Your task to perform on an android device: Go to sound settings Image 0: 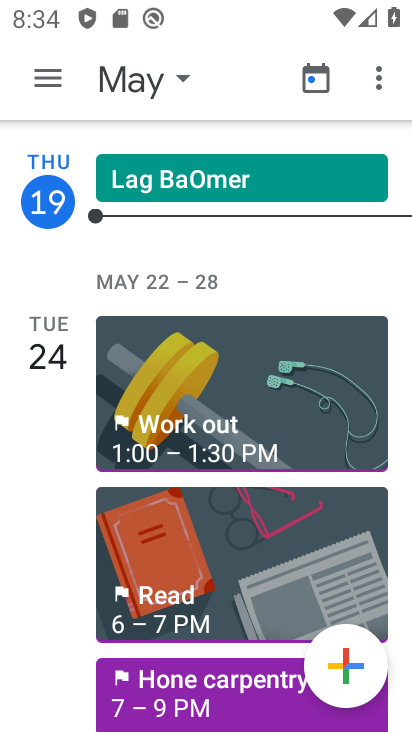
Step 0: press home button
Your task to perform on an android device: Go to sound settings Image 1: 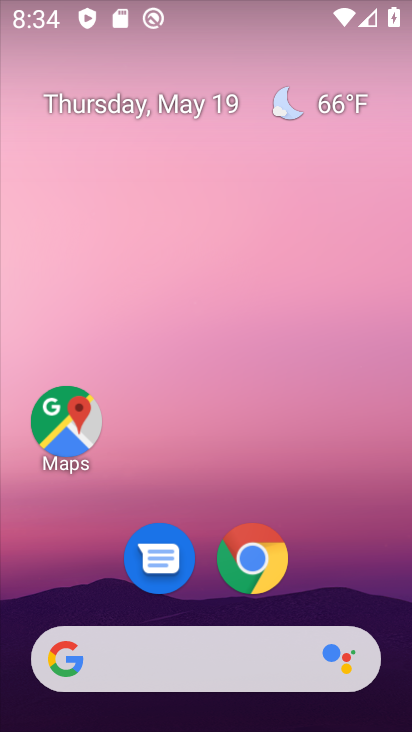
Step 1: drag from (174, 608) to (193, 264)
Your task to perform on an android device: Go to sound settings Image 2: 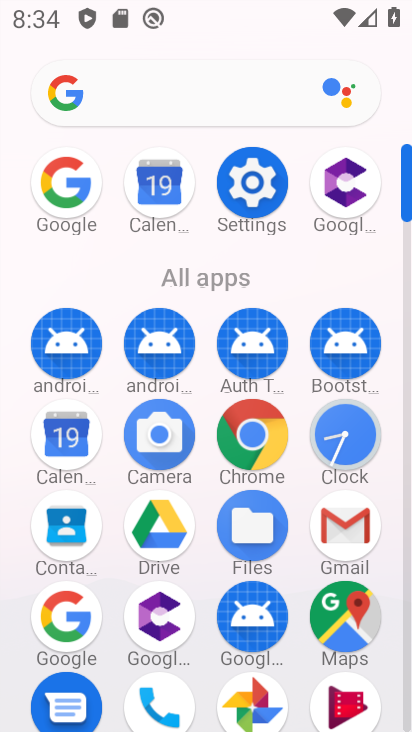
Step 2: click (249, 190)
Your task to perform on an android device: Go to sound settings Image 3: 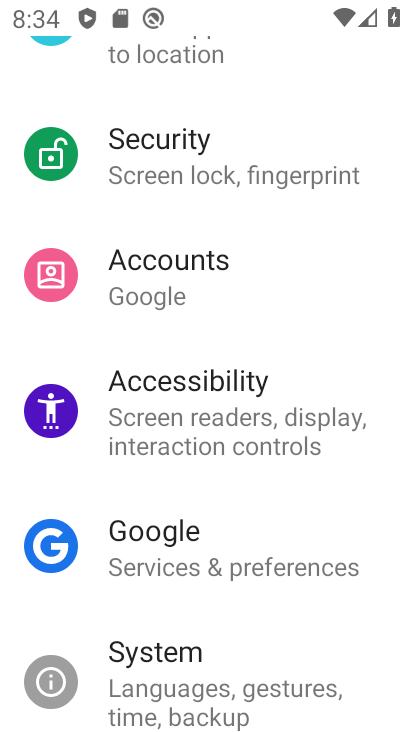
Step 3: drag from (189, 181) to (189, 498)
Your task to perform on an android device: Go to sound settings Image 4: 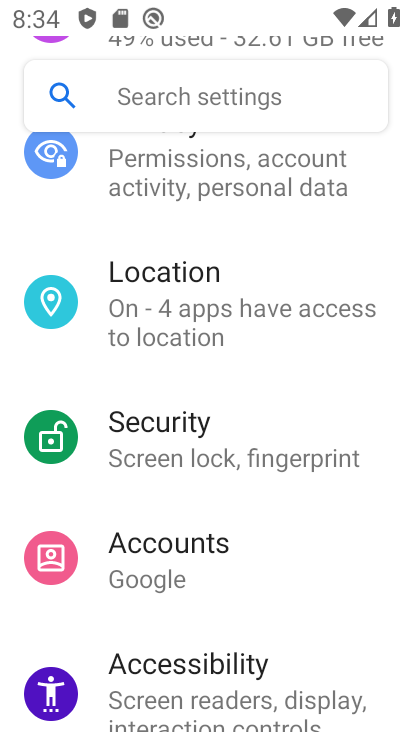
Step 4: drag from (237, 250) to (237, 586)
Your task to perform on an android device: Go to sound settings Image 5: 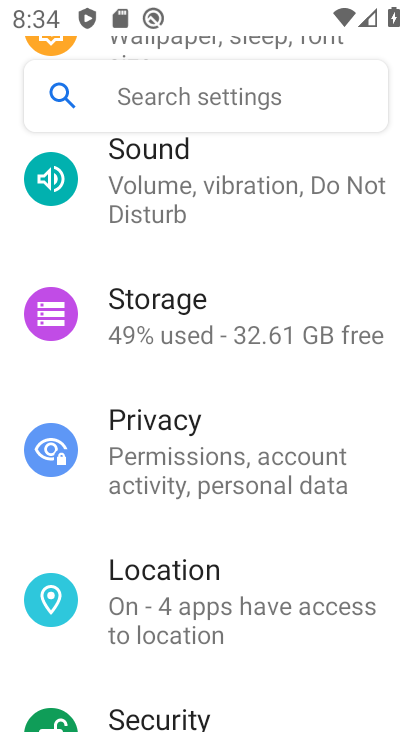
Step 5: click (184, 205)
Your task to perform on an android device: Go to sound settings Image 6: 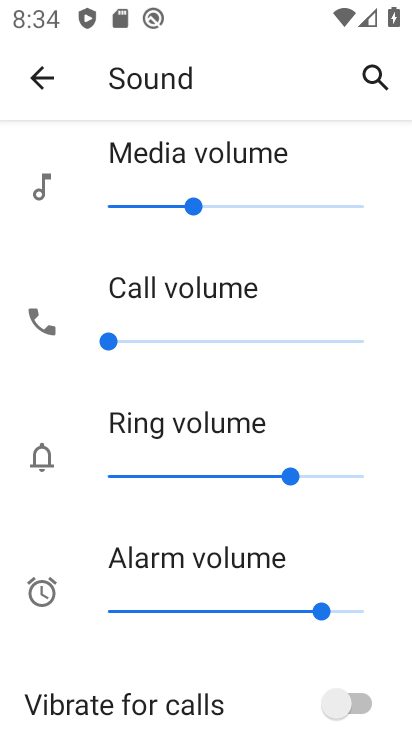
Step 6: task complete